Your task to perform on an android device: open the mobile data screen to see how much data has been used Image 0: 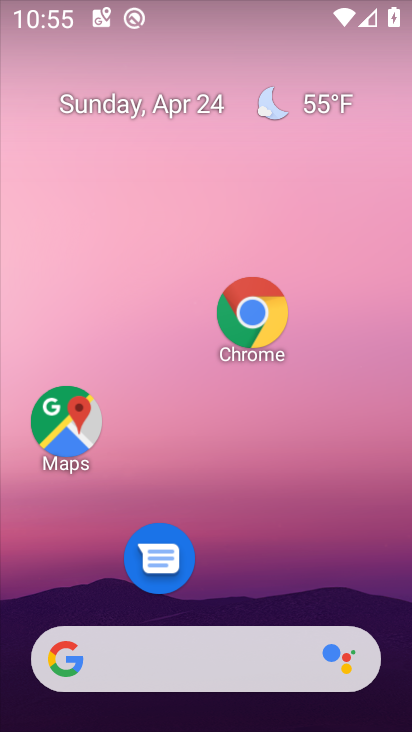
Step 0: drag from (344, 685) to (147, 10)
Your task to perform on an android device: open the mobile data screen to see how much data has been used Image 1: 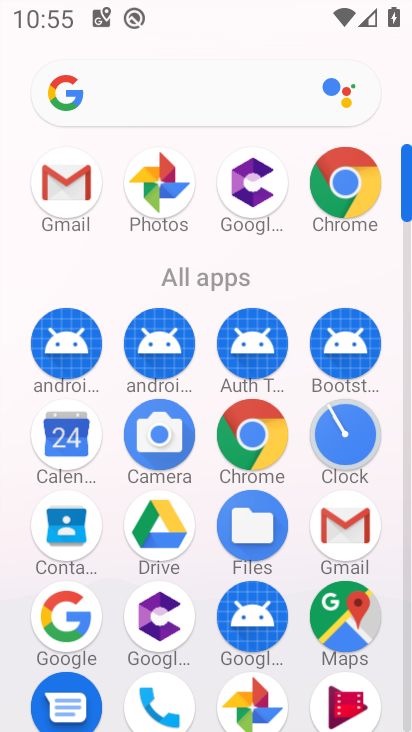
Step 1: drag from (203, 655) to (138, 122)
Your task to perform on an android device: open the mobile data screen to see how much data has been used Image 2: 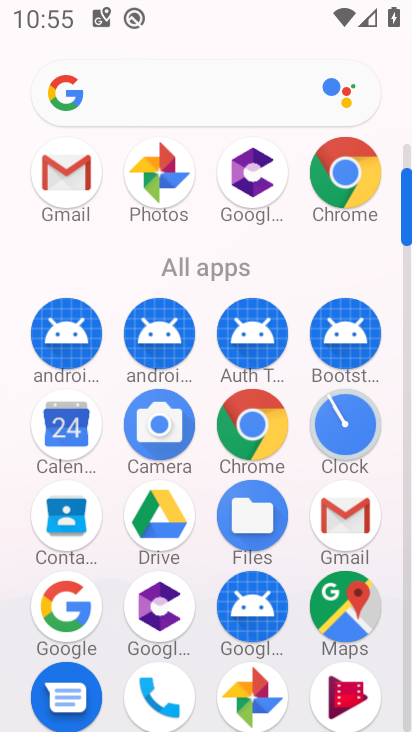
Step 2: drag from (204, 592) to (166, 179)
Your task to perform on an android device: open the mobile data screen to see how much data has been used Image 3: 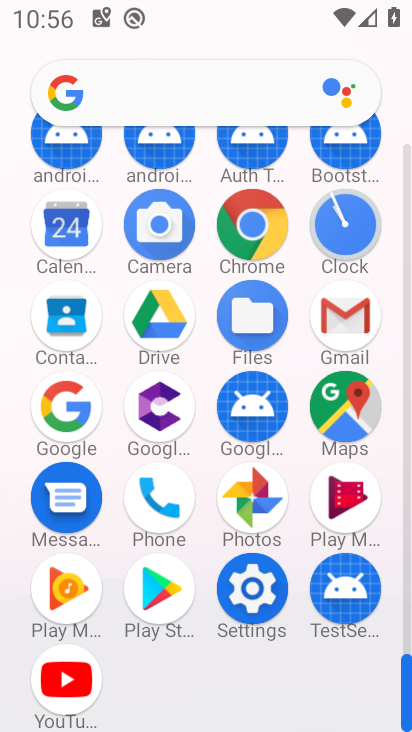
Step 3: click (253, 596)
Your task to perform on an android device: open the mobile data screen to see how much data has been used Image 4: 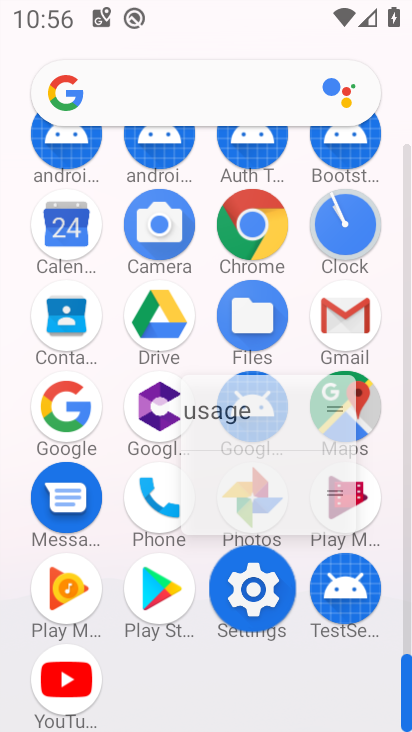
Step 4: click (257, 600)
Your task to perform on an android device: open the mobile data screen to see how much data has been used Image 5: 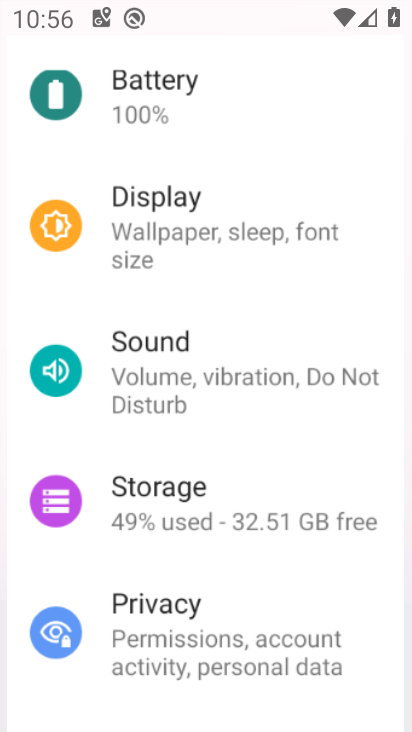
Step 5: click (245, 580)
Your task to perform on an android device: open the mobile data screen to see how much data has been used Image 6: 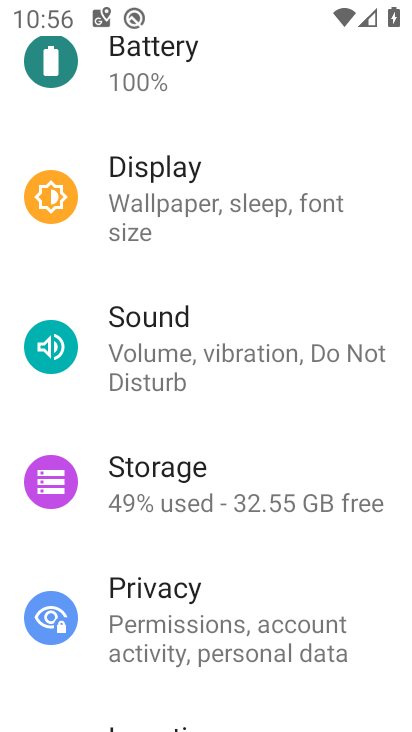
Step 6: click (201, 489)
Your task to perform on an android device: open the mobile data screen to see how much data has been used Image 7: 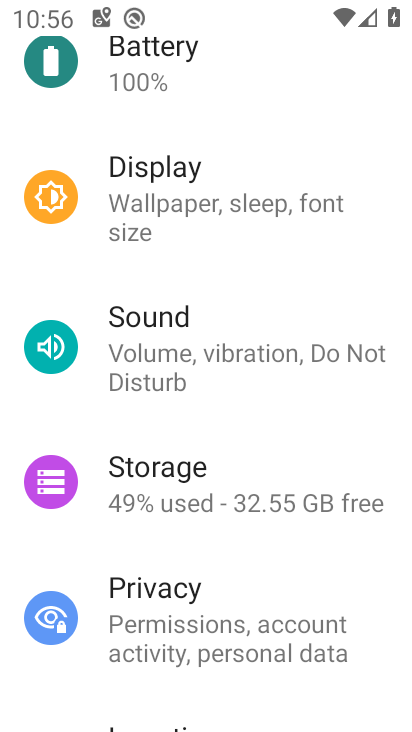
Step 7: drag from (235, 636) to (244, 479)
Your task to perform on an android device: open the mobile data screen to see how much data has been used Image 8: 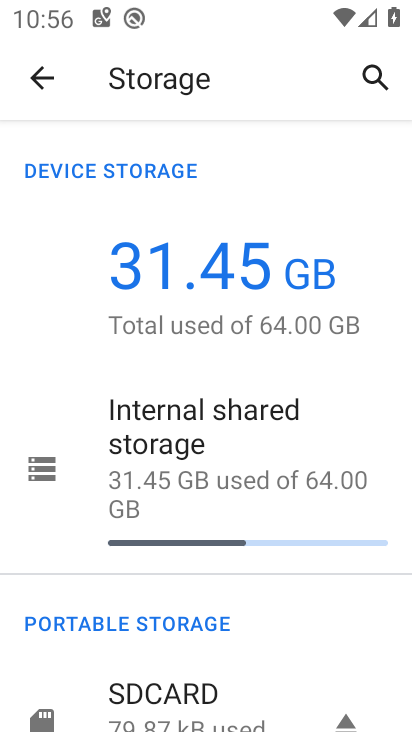
Step 8: click (35, 72)
Your task to perform on an android device: open the mobile data screen to see how much data has been used Image 9: 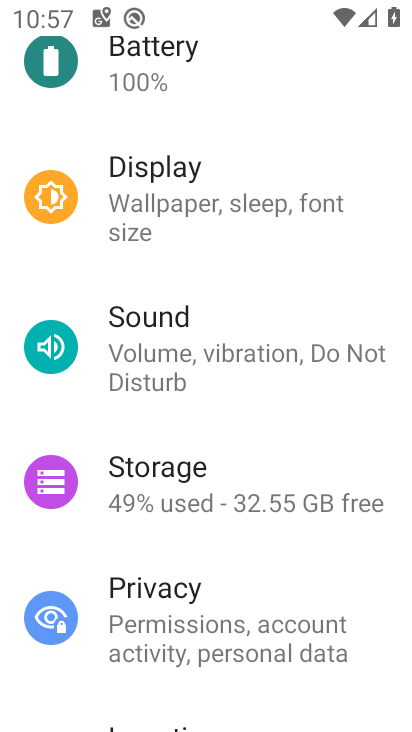
Step 9: drag from (185, 211) to (238, 620)
Your task to perform on an android device: open the mobile data screen to see how much data has been used Image 10: 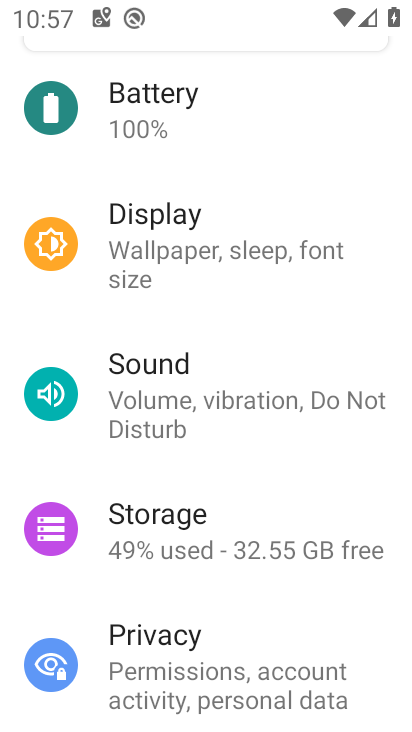
Step 10: drag from (259, 691) to (243, 611)
Your task to perform on an android device: open the mobile data screen to see how much data has been used Image 11: 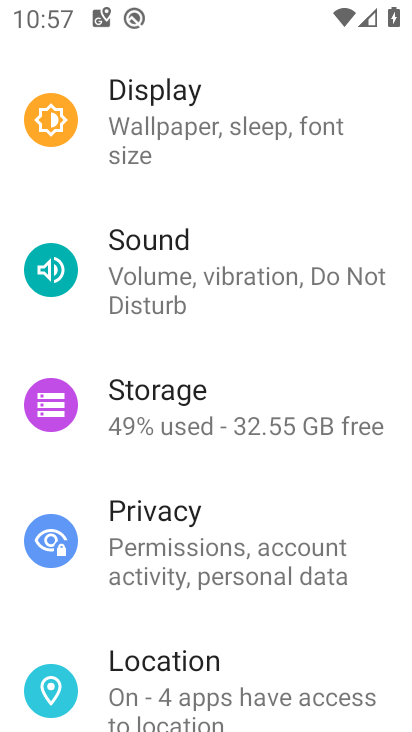
Step 11: drag from (222, 348) to (240, 381)
Your task to perform on an android device: open the mobile data screen to see how much data has been used Image 12: 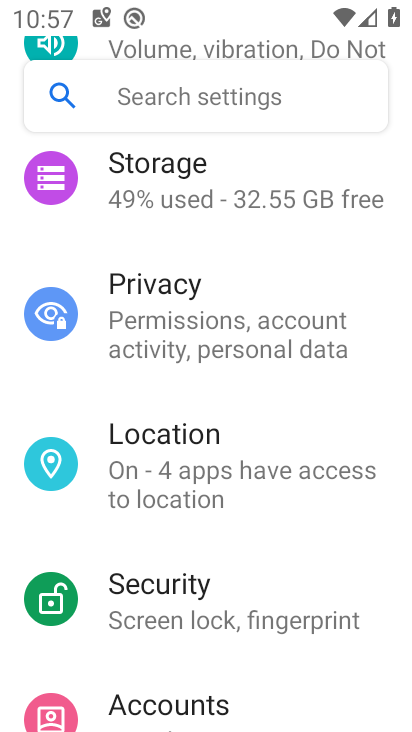
Step 12: drag from (226, 385) to (206, 516)
Your task to perform on an android device: open the mobile data screen to see how much data has been used Image 13: 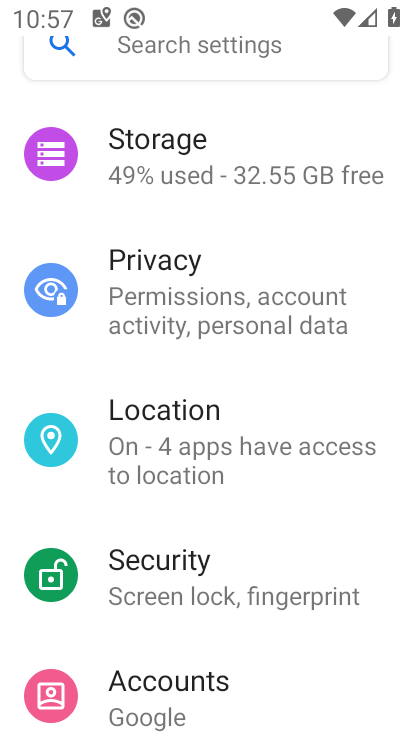
Step 13: drag from (165, 183) to (221, 524)
Your task to perform on an android device: open the mobile data screen to see how much data has been used Image 14: 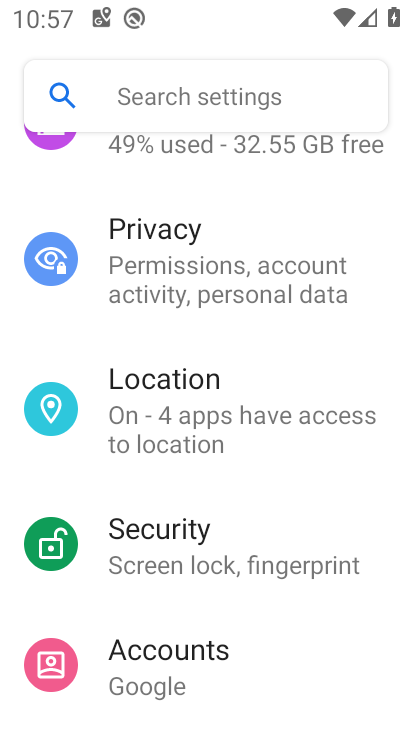
Step 14: drag from (199, 330) to (241, 595)
Your task to perform on an android device: open the mobile data screen to see how much data has been used Image 15: 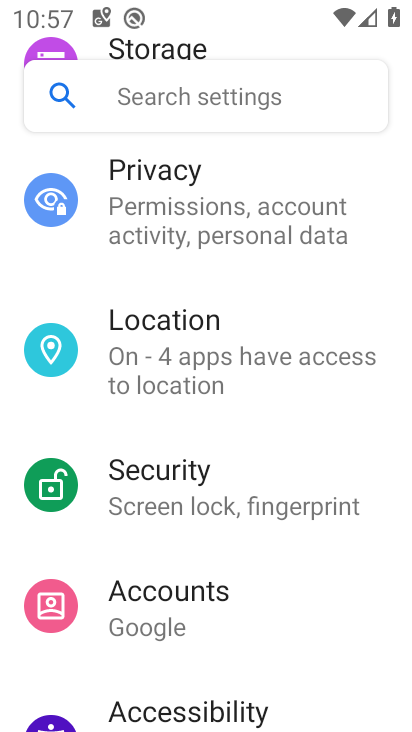
Step 15: drag from (197, 296) to (156, 538)
Your task to perform on an android device: open the mobile data screen to see how much data has been used Image 16: 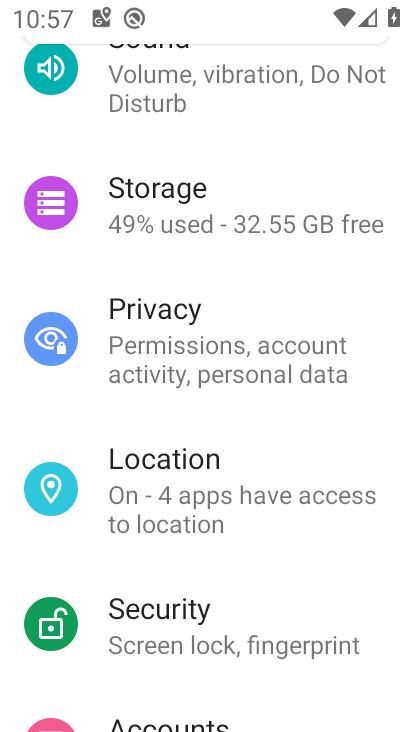
Step 16: drag from (150, 82) to (218, 502)
Your task to perform on an android device: open the mobile data screen to see how much data has been used Image 17: 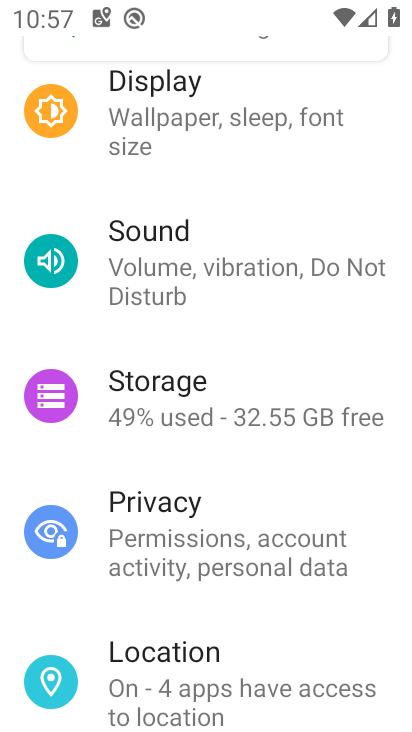
Step 17: drag from (206, 346) to (268, 536)
Your task to perform on an android device: open the mobile data screen to see how much data has been used Image 18: 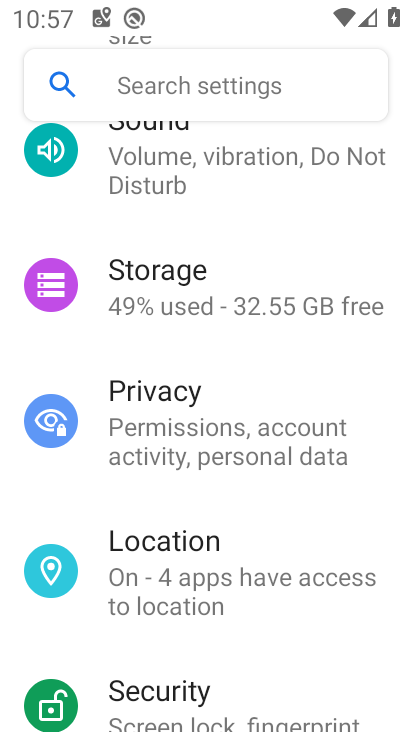
Step 18: drag from (162, 198) to (264, 653)
Your task to perform on an android device: open the mobile data screen to see how much data has been used Image 19: 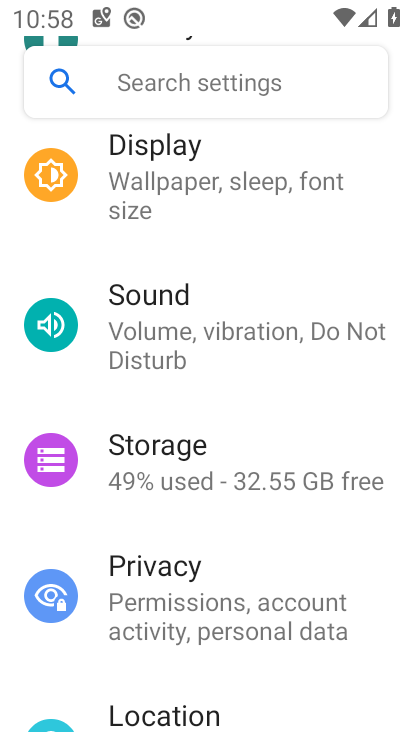
Step 19: drag from (166, 181) to (246, 486)
Your task to perform on an android device: open the mobile data screen to see how much data has been used Image 20: 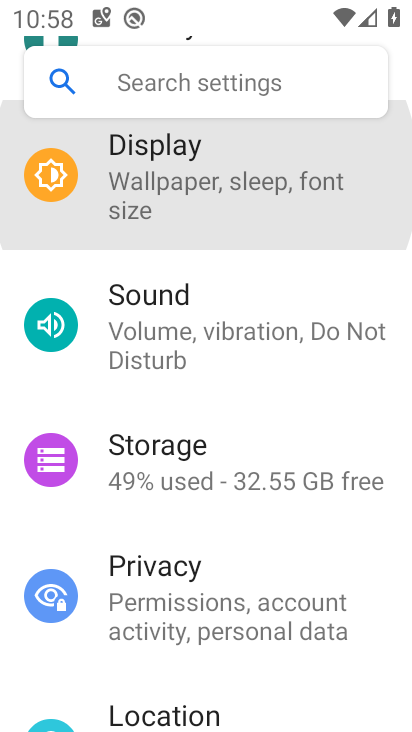
Step 20: click (276, 533)
Your task to perform on an android device: open the mobile data screen to see how much data has been used Image 21: 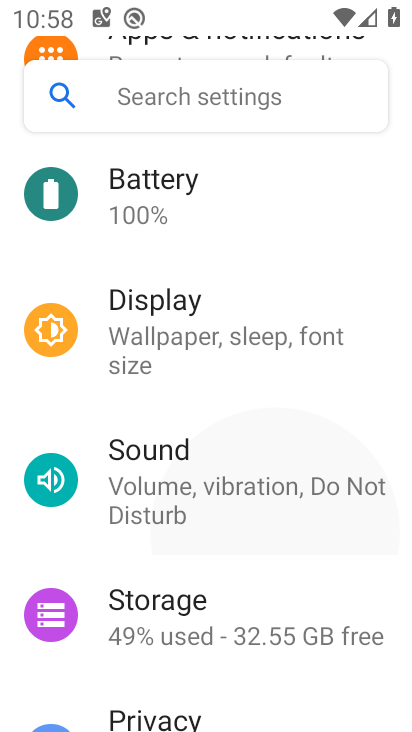
Step 21: drag from (201, 295) to (212, 512)
Your task to perform on an android device: open the mobile data screen to see how much data has been used Image 22: 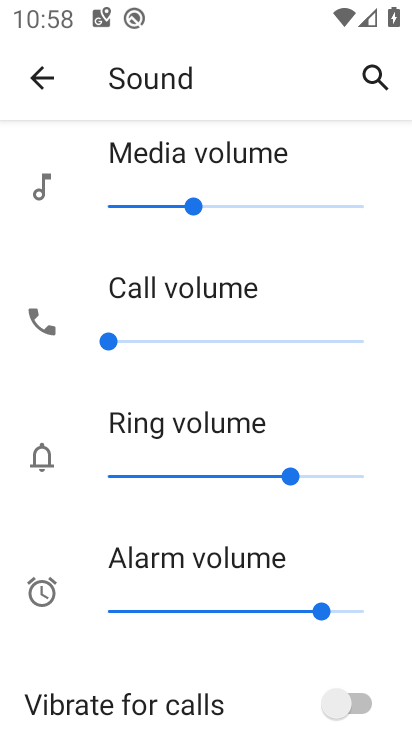
Step 22: click (48, 81)
Your task to perform on an android device: open the mobile data screen to see how much data has been used Image 23: 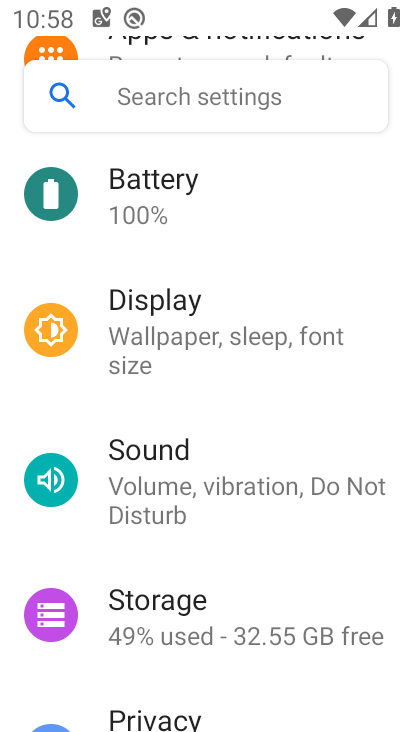
Step 23: drag from (175, 299) to (247, 686)
Your task to perform on an android device: open the mobile data screen to see how much data has been used Image 24: 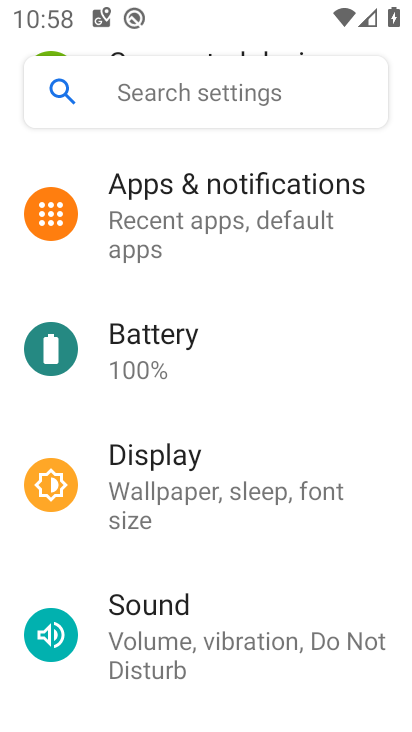
Step 24: drag from (224, 447) to (250, 544)
Your task to perform on an android device: open the mobile data screen to see how much data has been used Image 25: 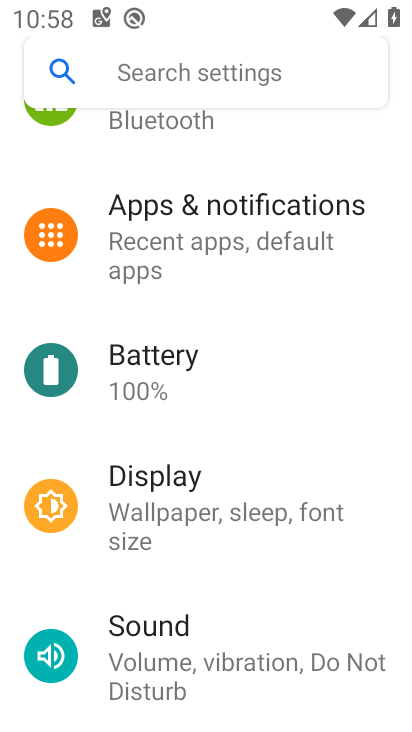
Step 25: drag from (176, 360) to (218, 596)
Your task to perform on an android device: open the mobile data screen to see how much data has been used Image 26: 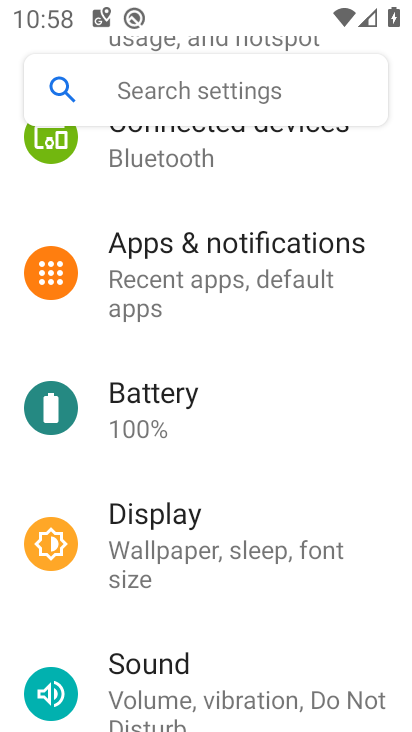
Step 26: drag from (220, 158) to (253, 455)
Your task to perform on an android device: open the mobile data screen to see how much data has been used Image 27: 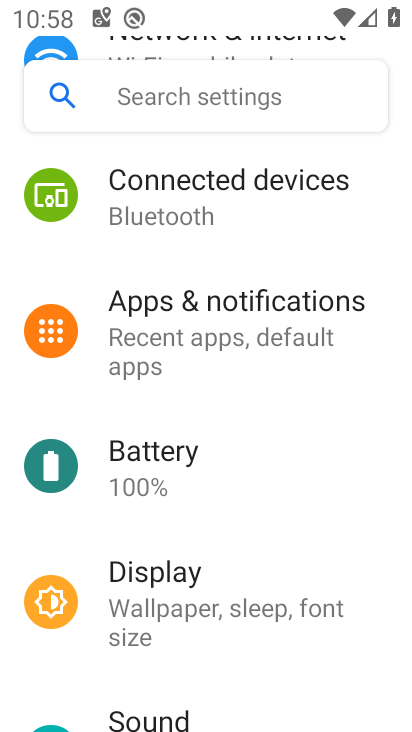
Step 27: click (240, 557)
Your task to perform on an android device: open the mobile data screen to see how much data has been used Image 28: 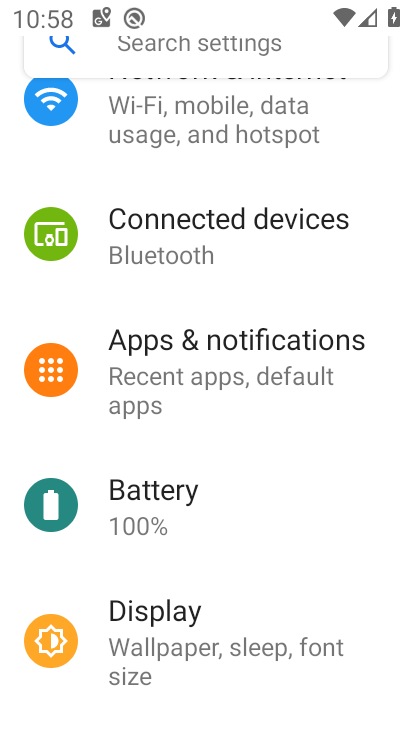
Step 28: drag from (191, 200) to (218, 709)
Your task to perform on an android device: open the mobile data screen to see how much data has been used Image 29: 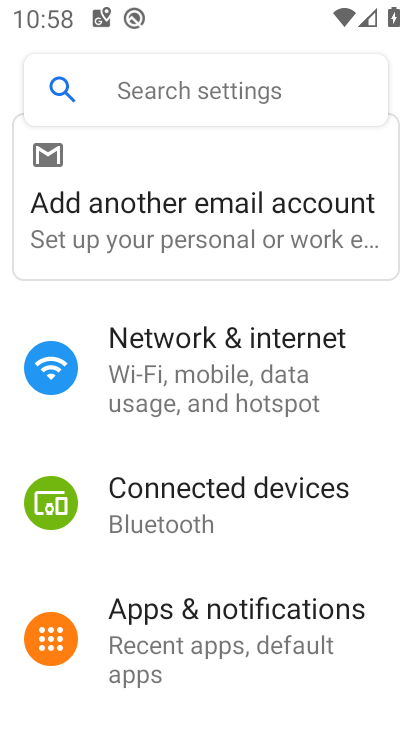
Step 29: drag from (170, 182) to (230, 600)
Your task to perform on an android device: open the mobile data screen to see how much data has been used Image 30: 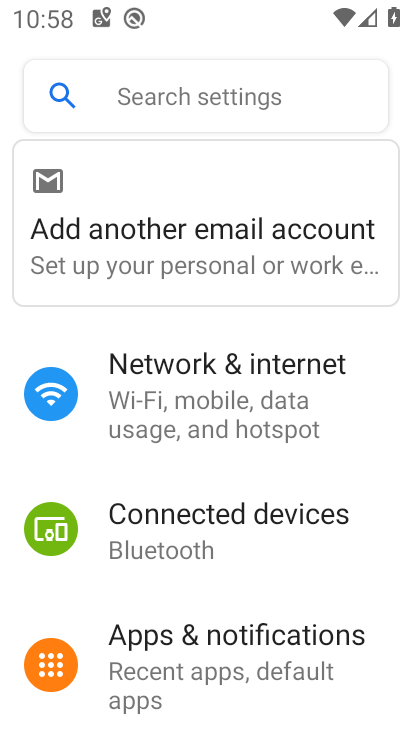
Step 30: click (245, 343)
Your task to perform on an android device: open the mobile data screen to see how much data has been used Image 31: 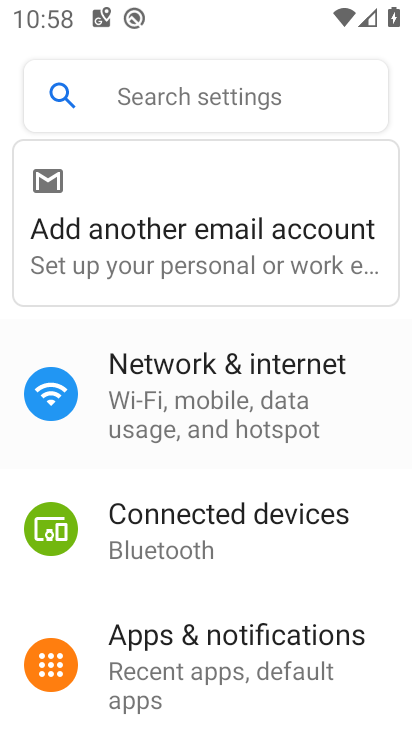
Step 31: click (217, 382)
Your task to perform on an android device: open the mobile data screen to see how much data has been used Image 32: 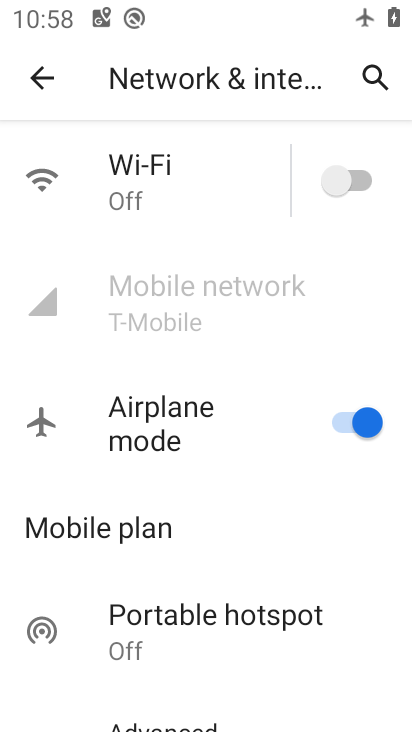
Step 32: click (32, 80)
Your task to perform on an android device: open the mobile data screen to see how much data has been used Image 33: 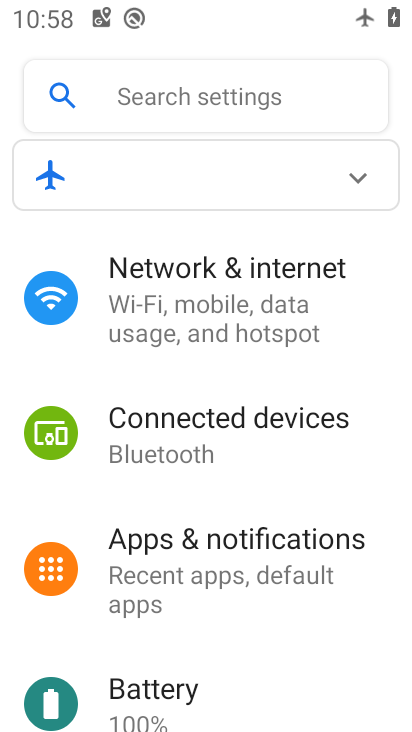
Step 33: task complete